Your task to perform on an android device: Go to location settings Image 0: 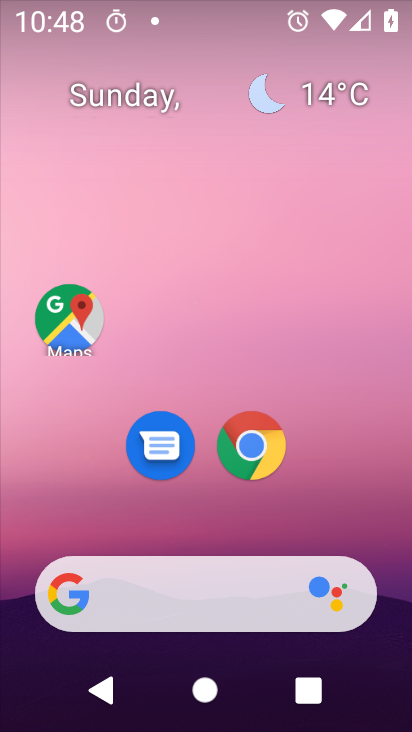
Step 0: drag from (206, 490) to (277, 3)
Your task to perform on an android device: Go to location settings Image 1: 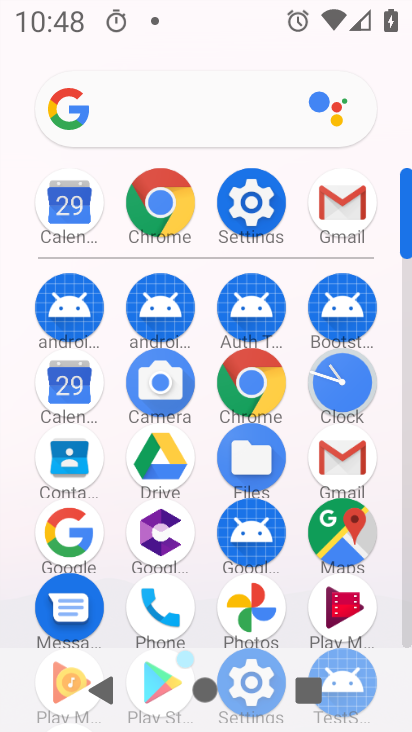
Step 1: click (261, 191)
Your task to perform on an android device: Go to location settings Image 2: 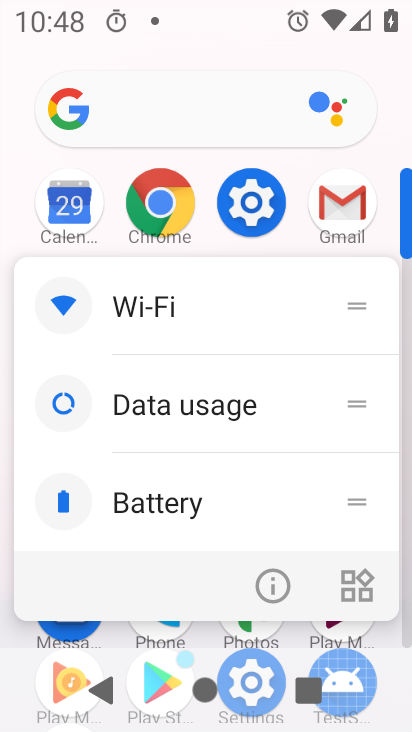
Step 2: click (266, 588)
Your task to perform on an android device: Go to location settings Image 3: 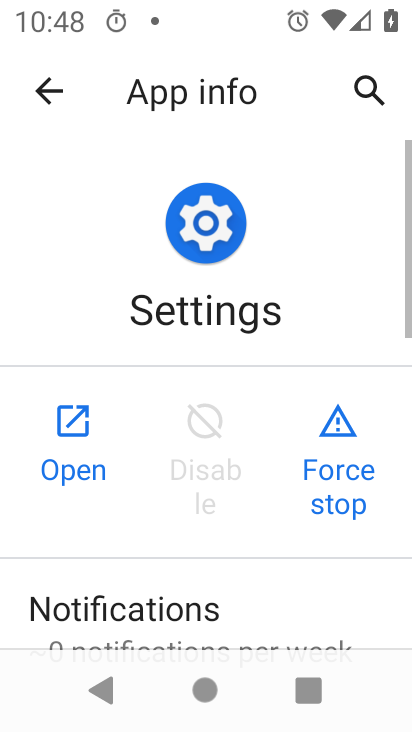
Step 3: click (89, 415)
Your task to perform on an android device: Go to location settings Image 4: 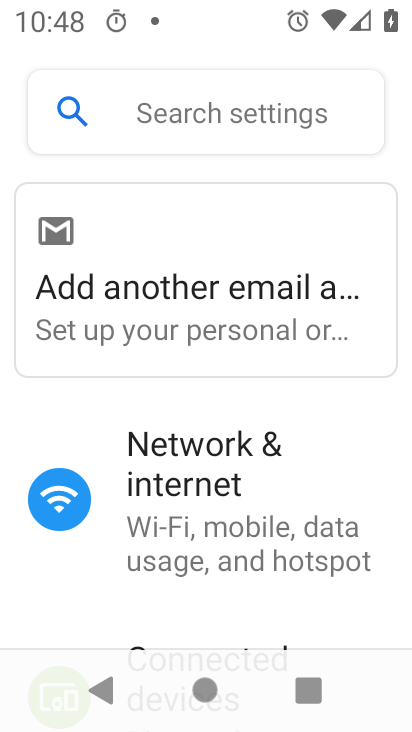
Step 4: drag from (250, 555) to (406, 92)
Your task to perform on an android device: Go to location settings Image 5: 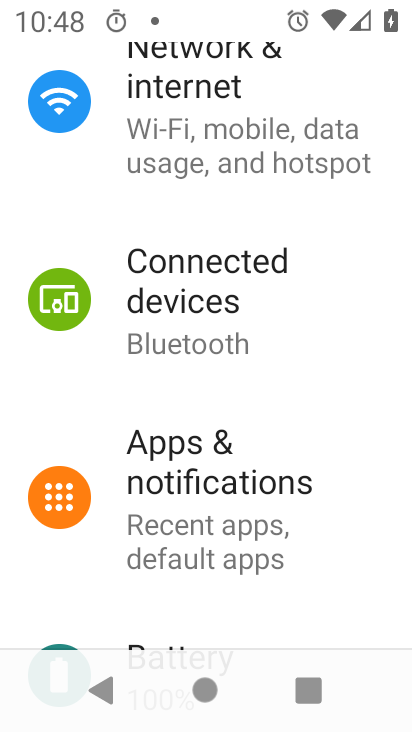
Step 5: drag from (197, 571) to (288, 139)
Your task to perform on an android device: Go to location settings Image 6: 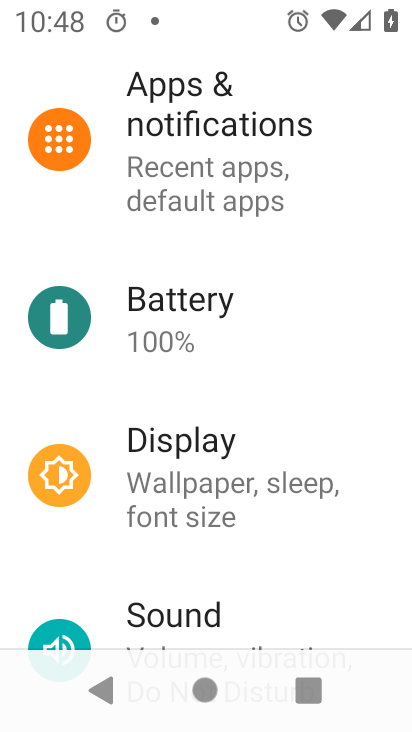
Step 6: drag from (235, 562) to (285, 91)
Your task to perform on an android device: Go to location settings Image 7: 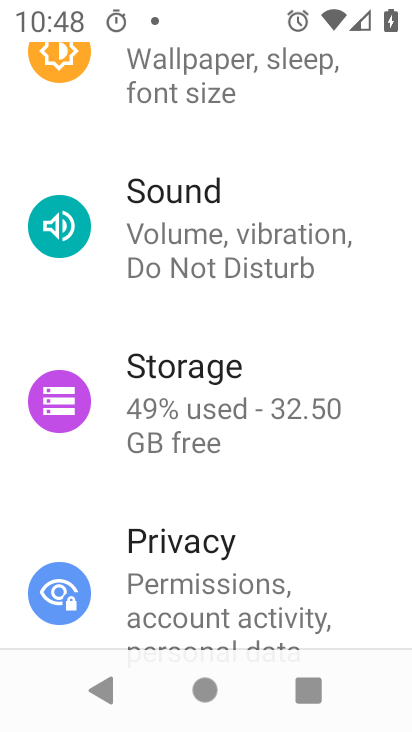
Step 7: drag from (273, 344) to (375, 7)
Your task to perform on an android device: Go to location settings Image 8: 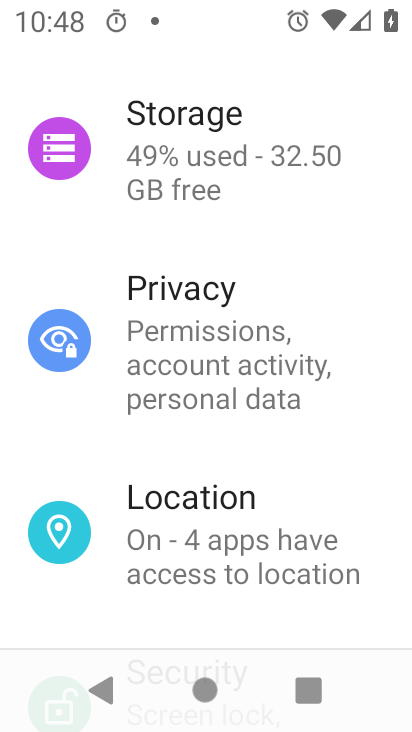
Step 8: click (205, 541)
Your task to perform on an android device: Go to location settings Image 9: 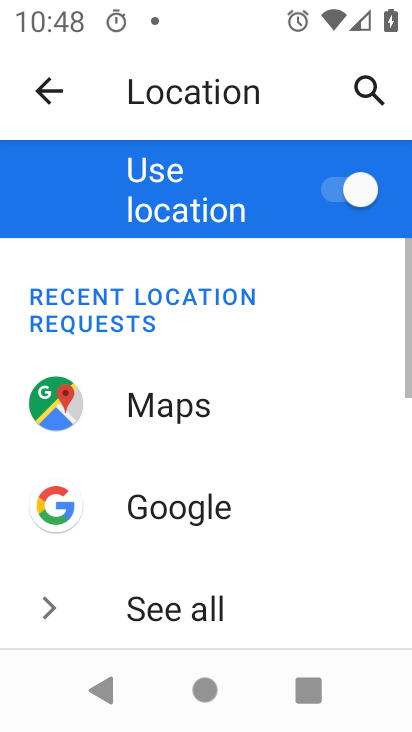
Step 9: task complete